Your task to perform on an android device: Turn on the flashlight Image 0: 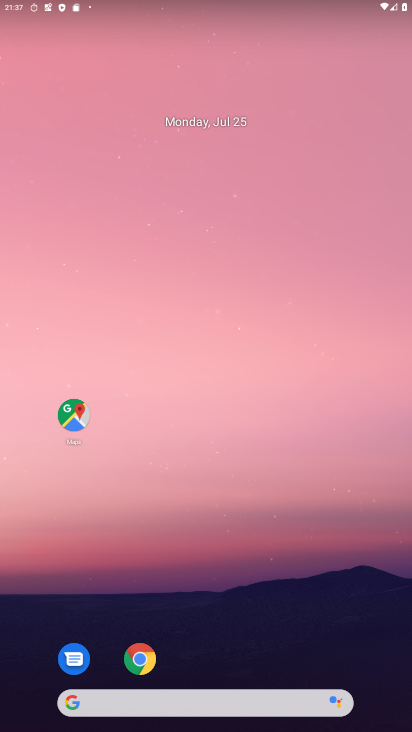
Step 0: drag from (192, 642) to (230, 96)
Your task to perform on an android device: Turn on the flashlight Image 1: 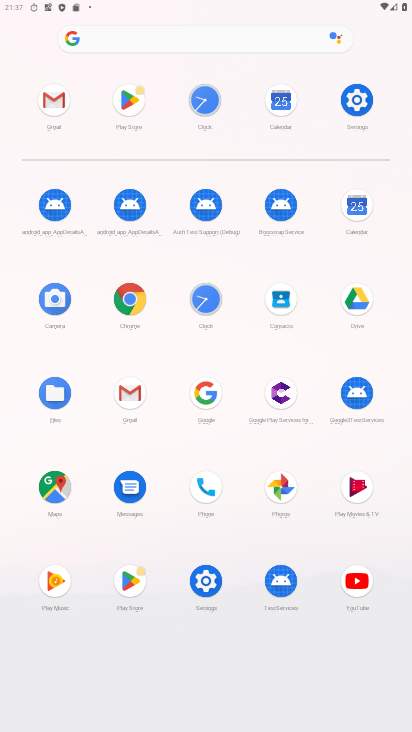
Step 1: click (343, 102)
Your task to perform on an android device: Turn on the flashlight Image 2: 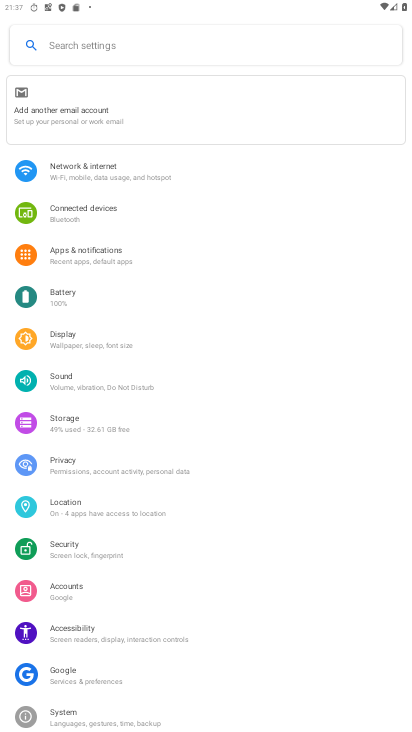
Step 2: task complete